Your task to perform on an android device: Search for the best-rated coffee table on Crate & Barrel Image 0: 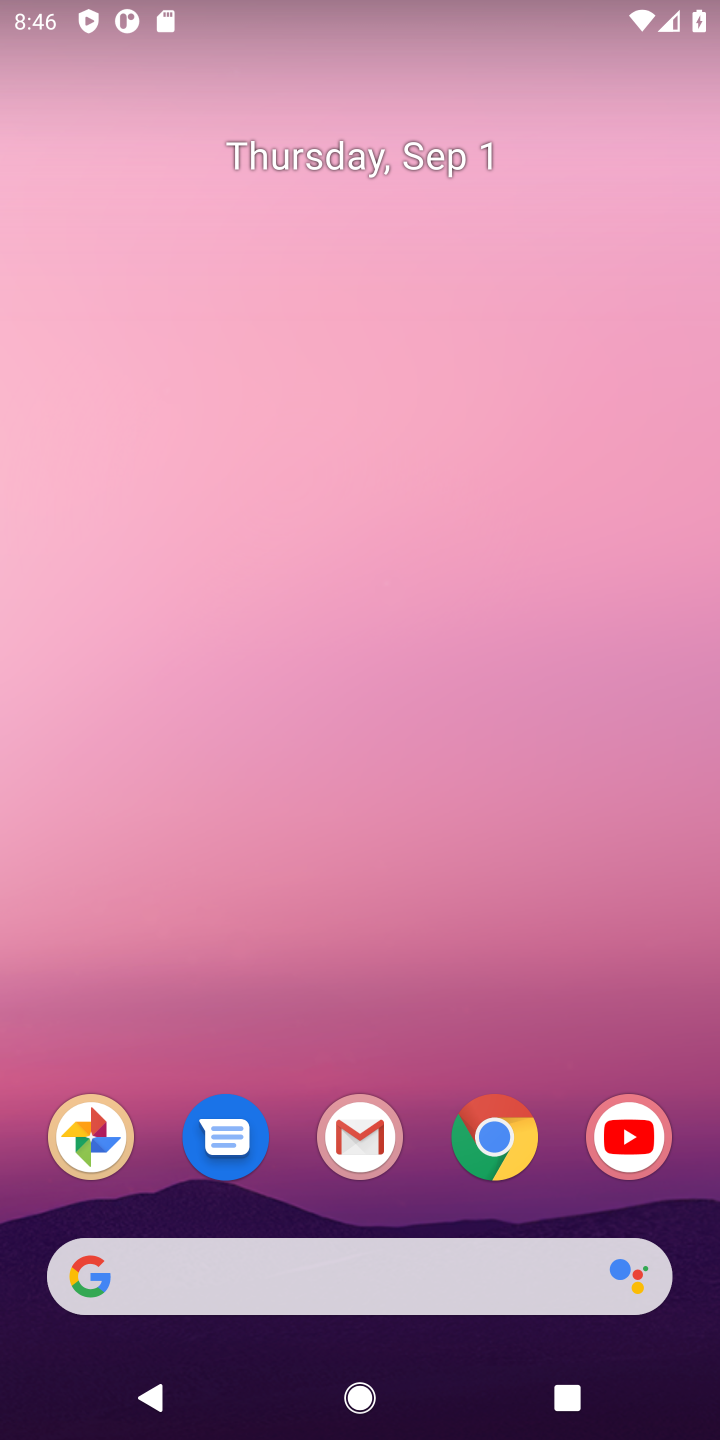
Step 0: drag from (401, 249) to (380, 0)
Your task to perform on an android device: Search for the best-rated coffee table on Crate & Barrel Image 1: 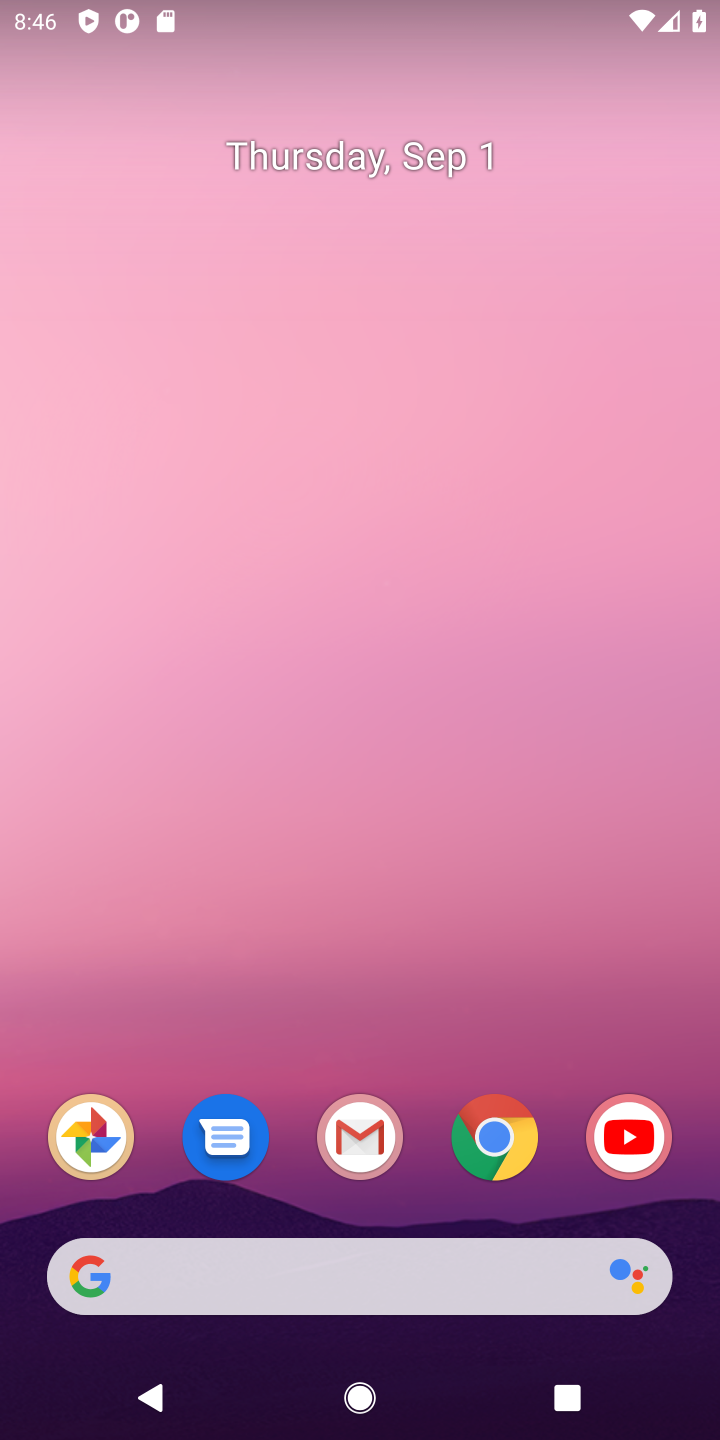
Step 1: drag from (485, 301) to (491, 31)
Your task to perform on an android device: Search for the best-rated coffee table on Crate & Barrel Image 2: 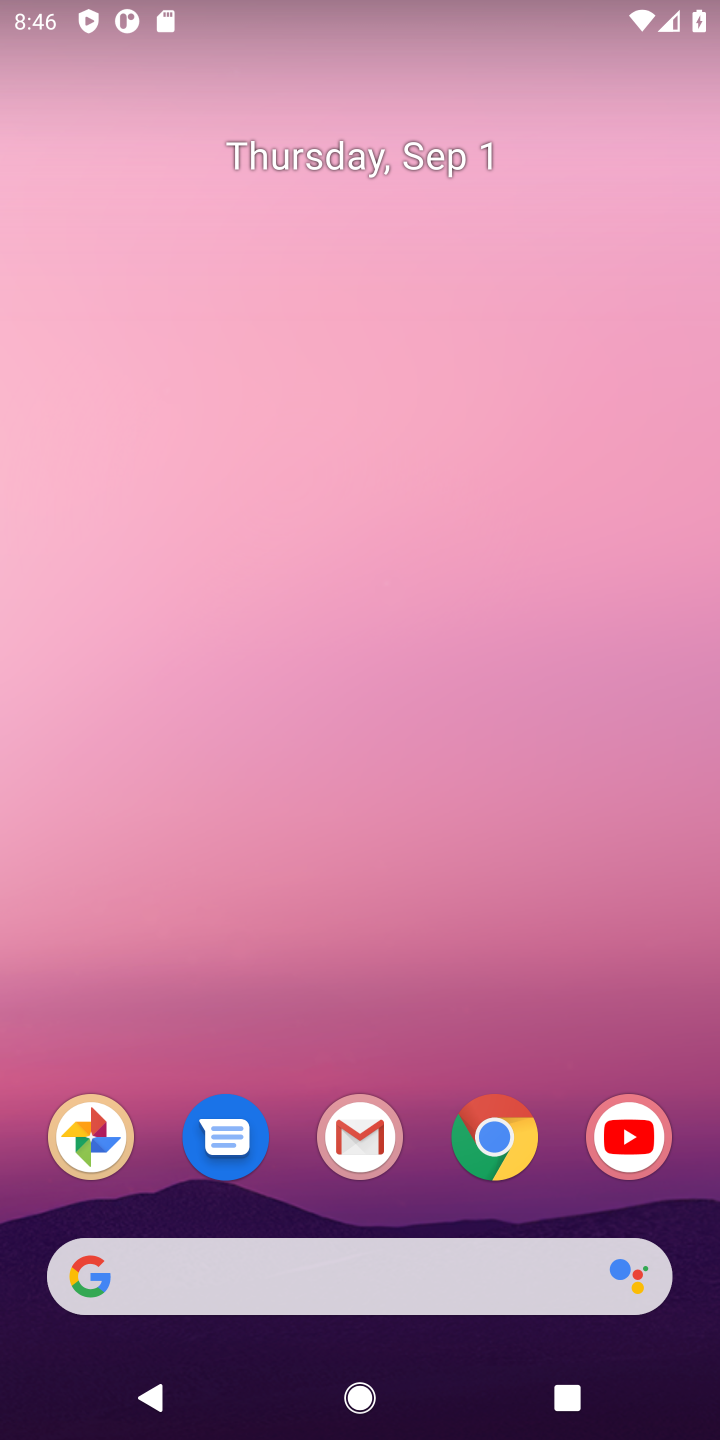
Step 2: drag from (436, 767) to (475, 0)
Your task to perform on an android device: Search for the best-rated coffee table on Crate & Barrel Image 3: 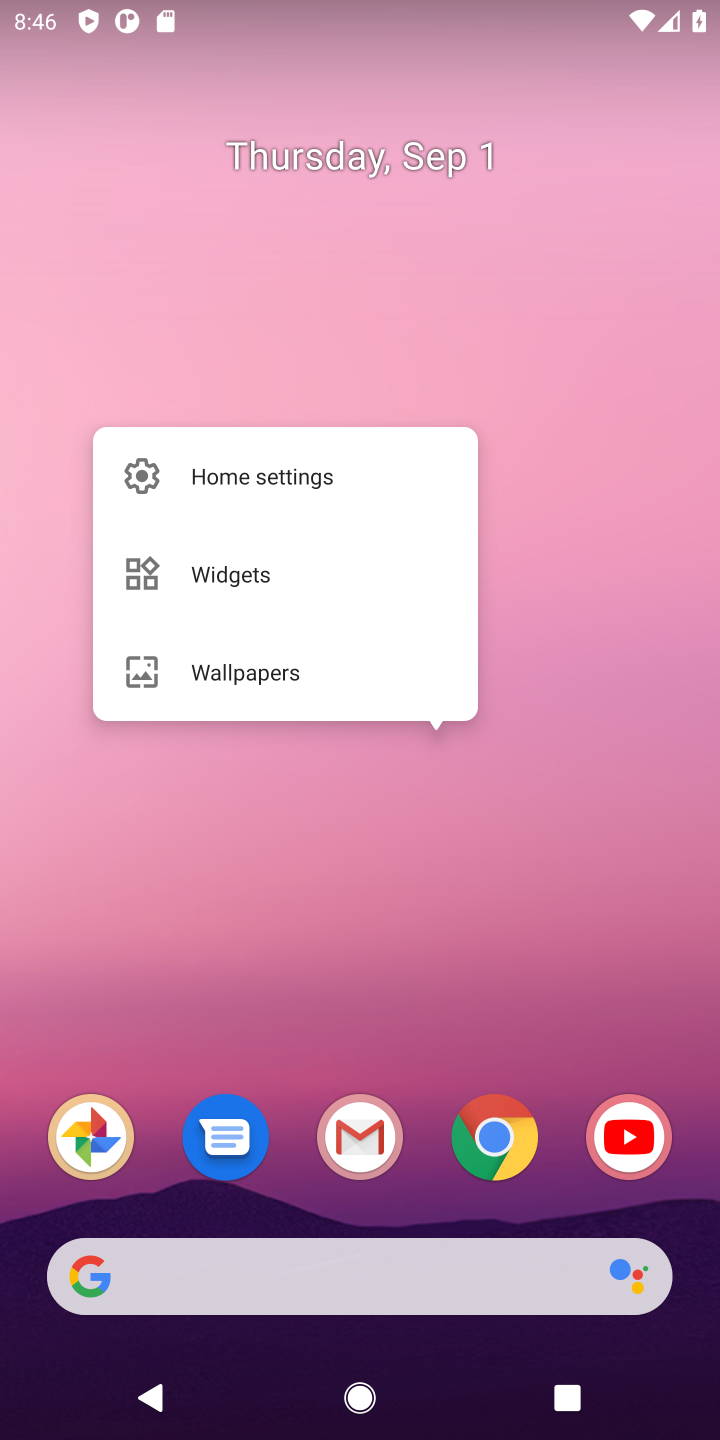
Step 3: click (494, 896)
Your task to perform on an android device: Search for the best-rated coffee table on Crate & Barrel Image 4: 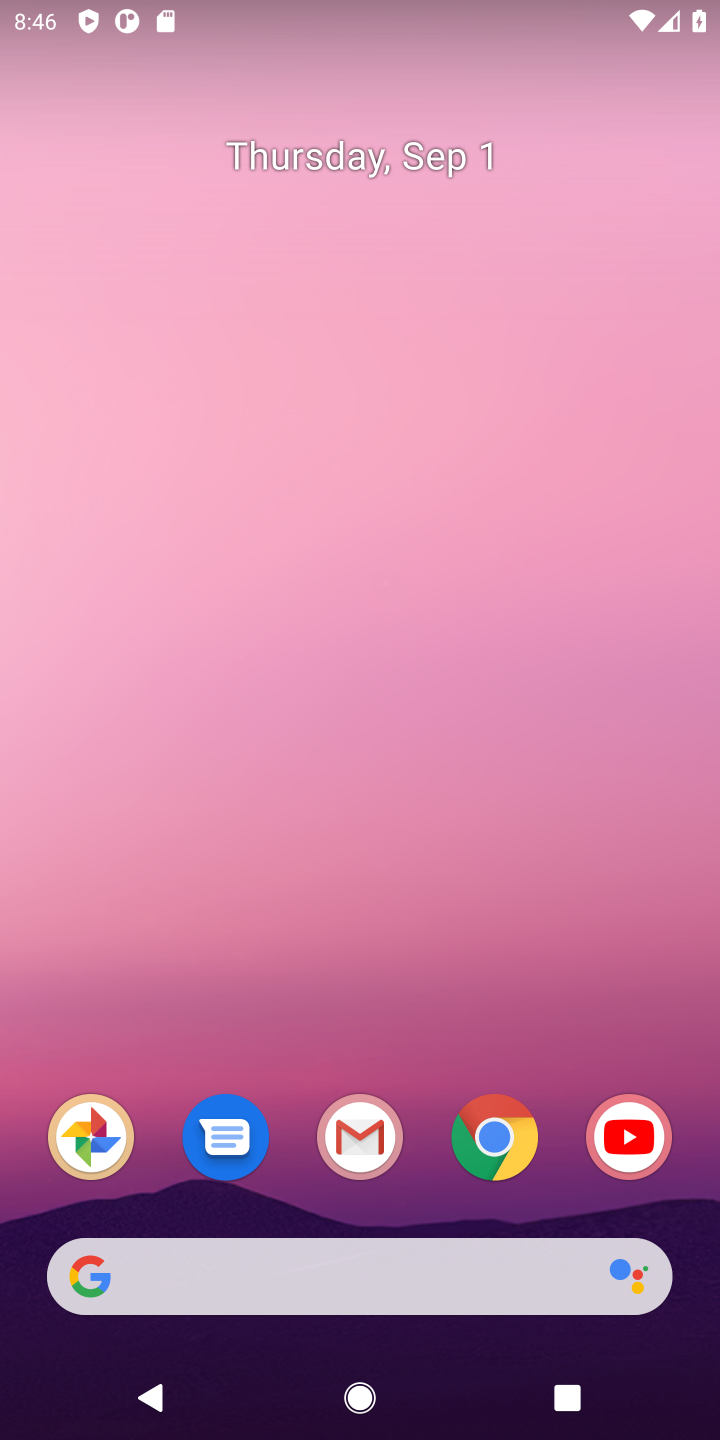
Step 4: click (500, 1125)
Your task to perform on an android device: Search for the best-rated coffee table on Crate & Barrel Image 5: 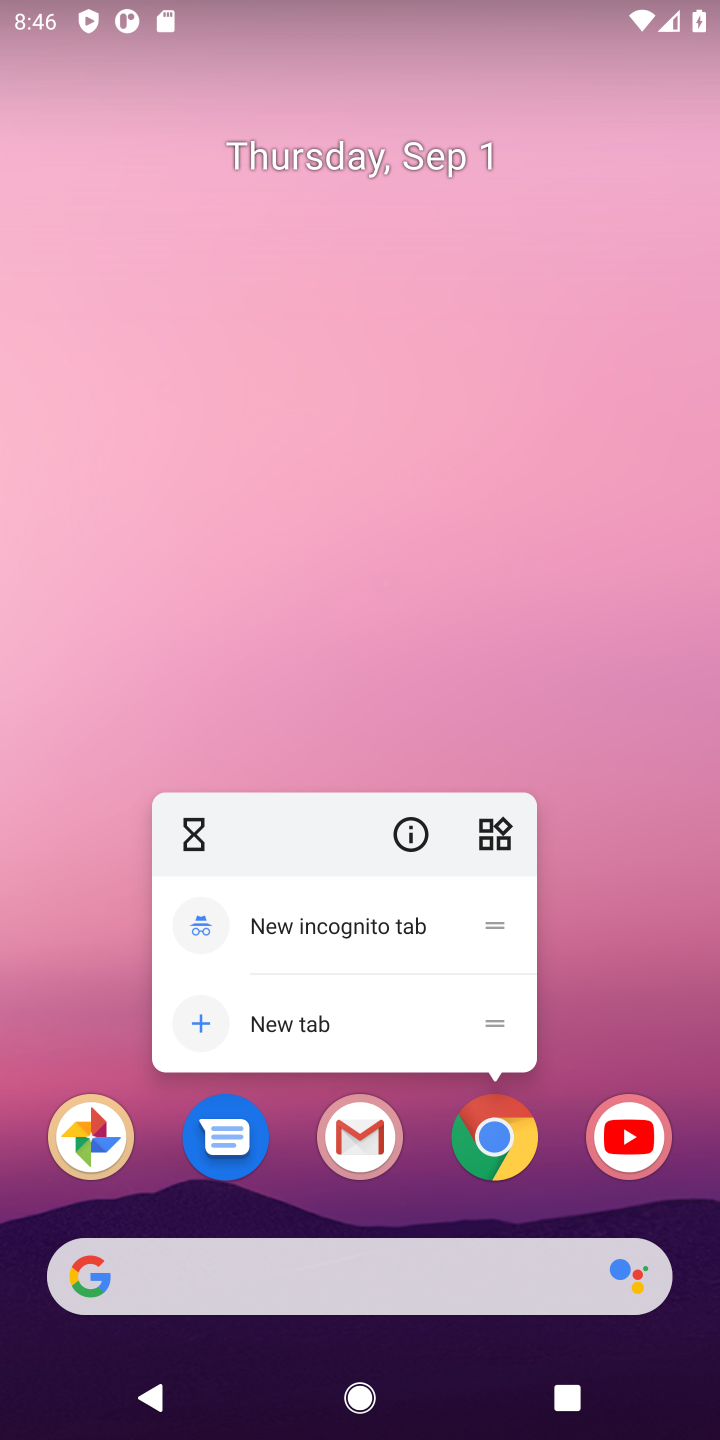
Step 5: click (511, 1149)
Your task to perform on an android device: Search for the best-rated coffee table on Crate & Barrel Image 6: 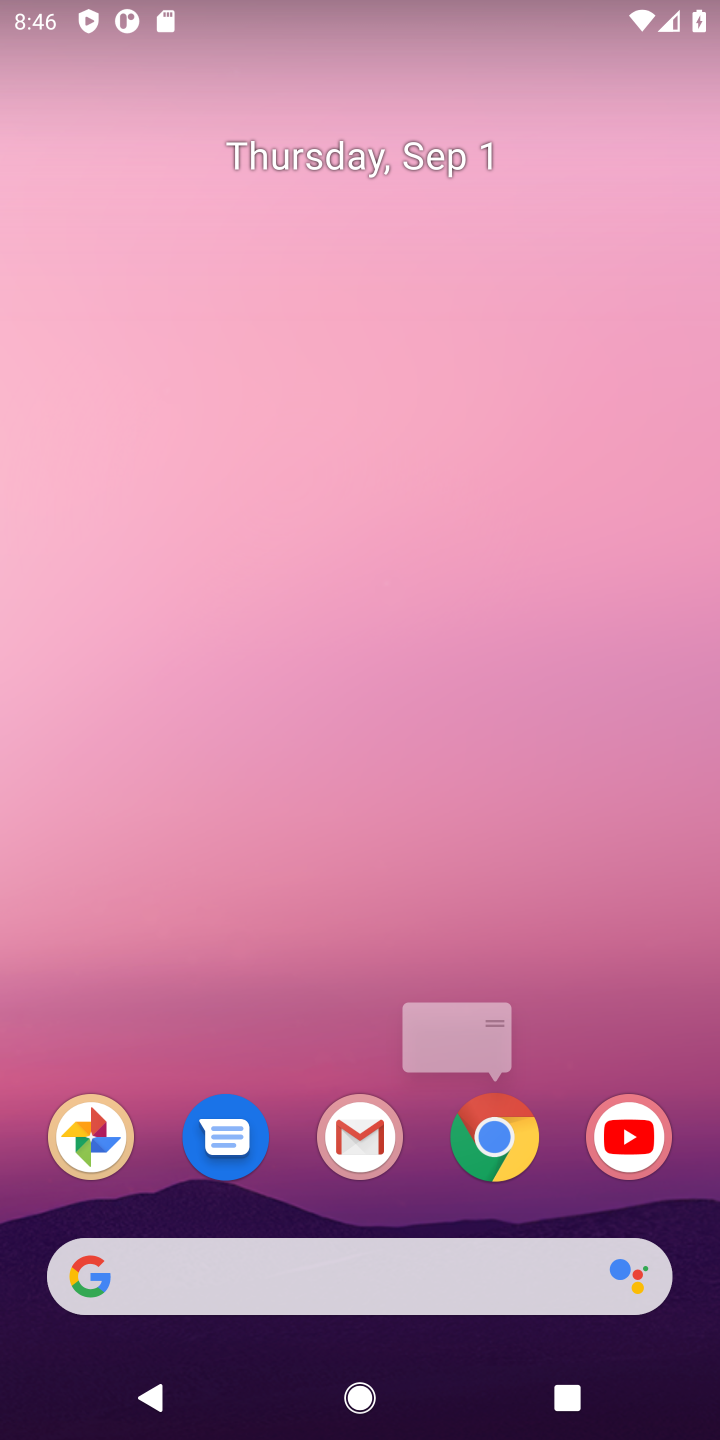
Step 6: drag from (575, 1199) to (638, 0)
Your task to perform on an android device: Search for the best-rated coffee table on Crate & Barrel Image 7: 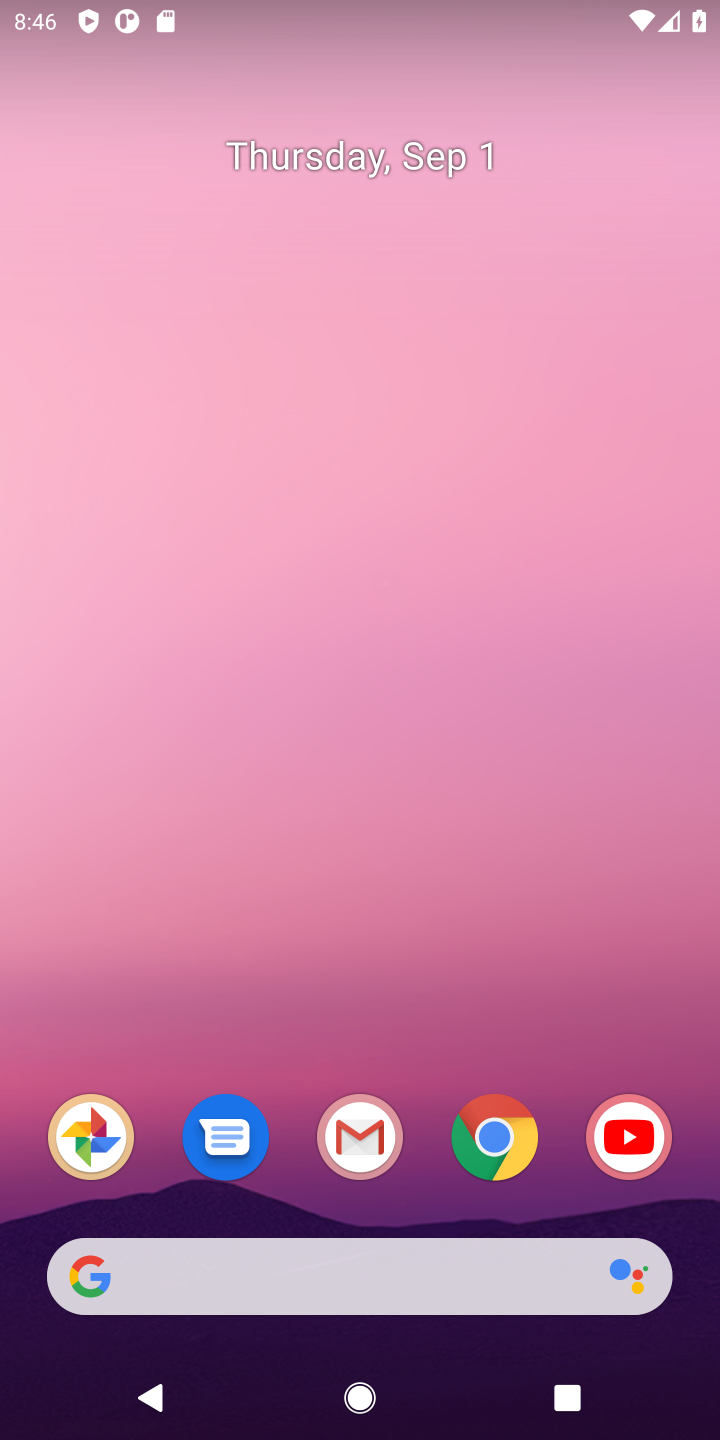
Step 7: drag from (571, 1182) to (656, 11)
Your task to perform on an android device: Search for the best-rated coffee table on Crate & Barrel Image 8: 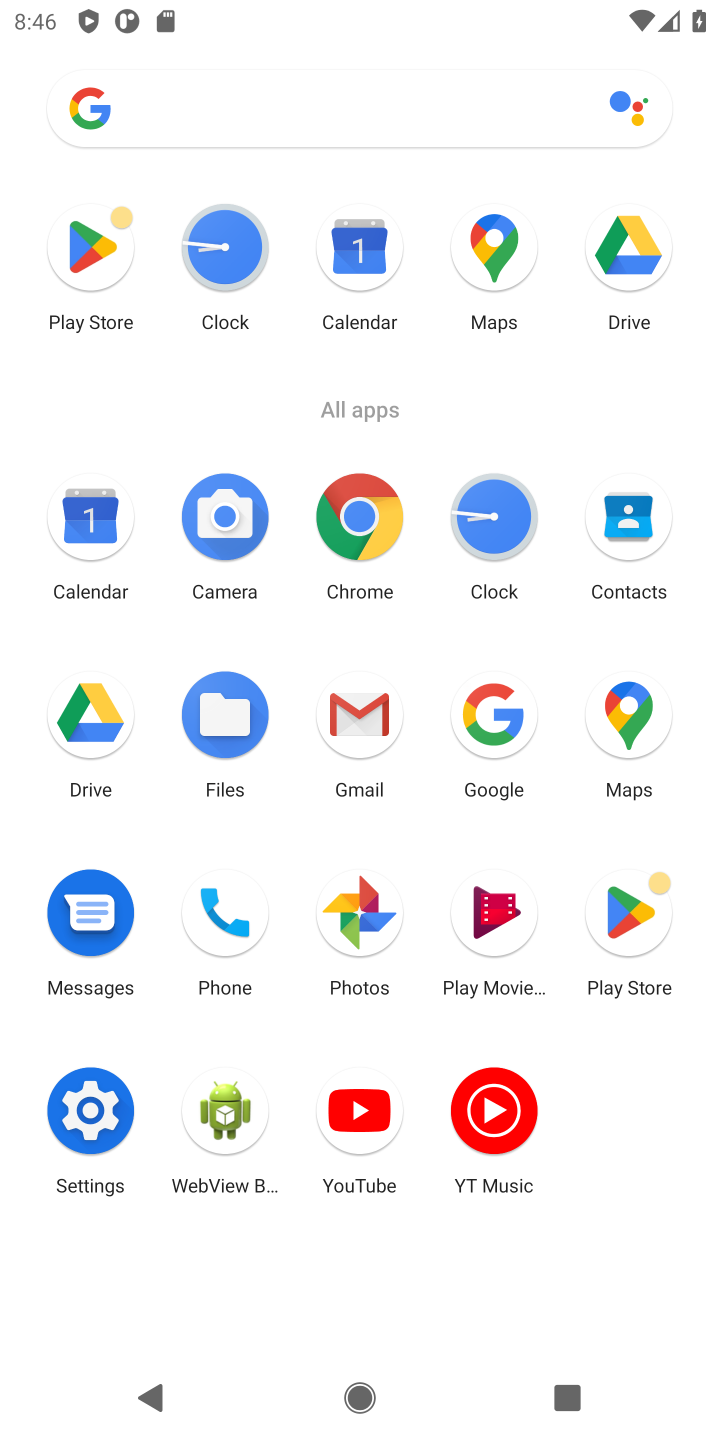
Step 8: click (361, 508)
Your task to perform on an android device: Search for the best-rated coffee table on Crate & Barrel Image 9: 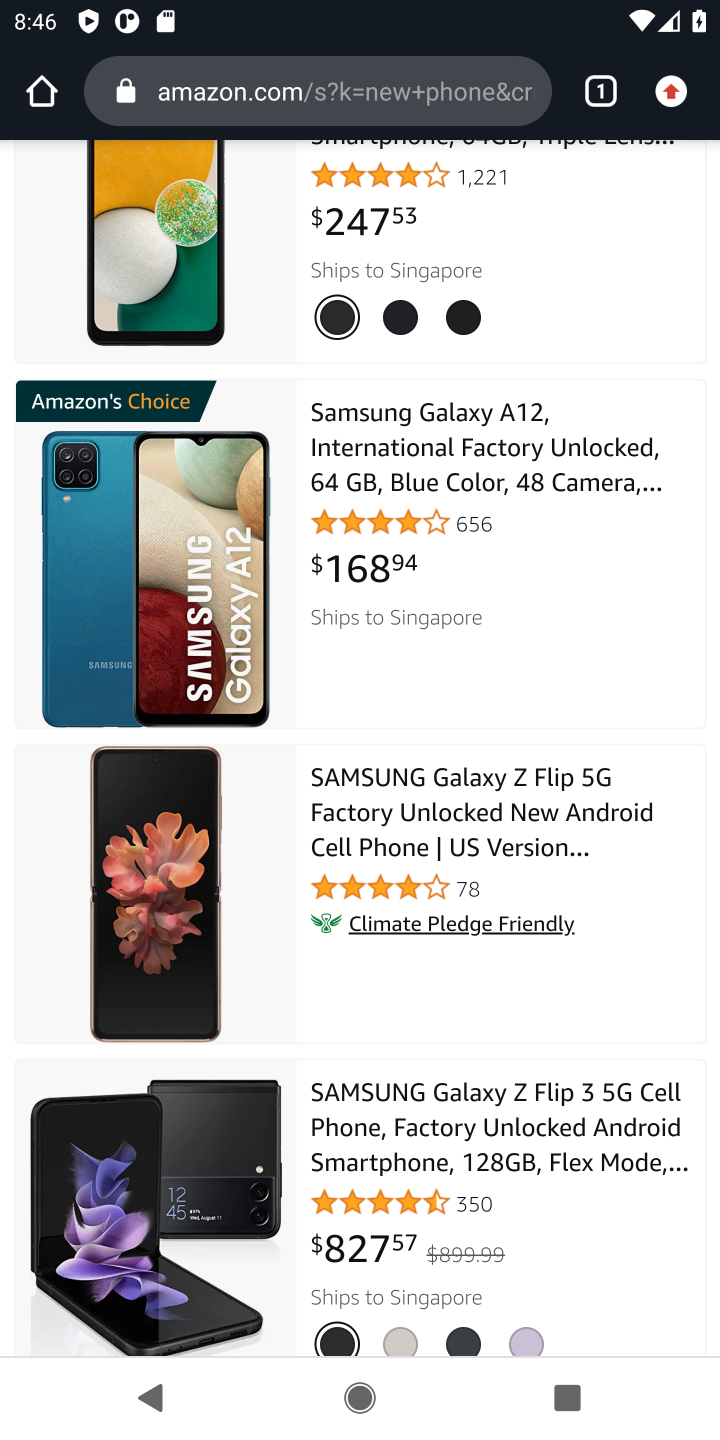
Step 9: click (597, 84)
Your task to perform on an android device: Search for the best-rated coffee table on Crate & Barrel Image 10: 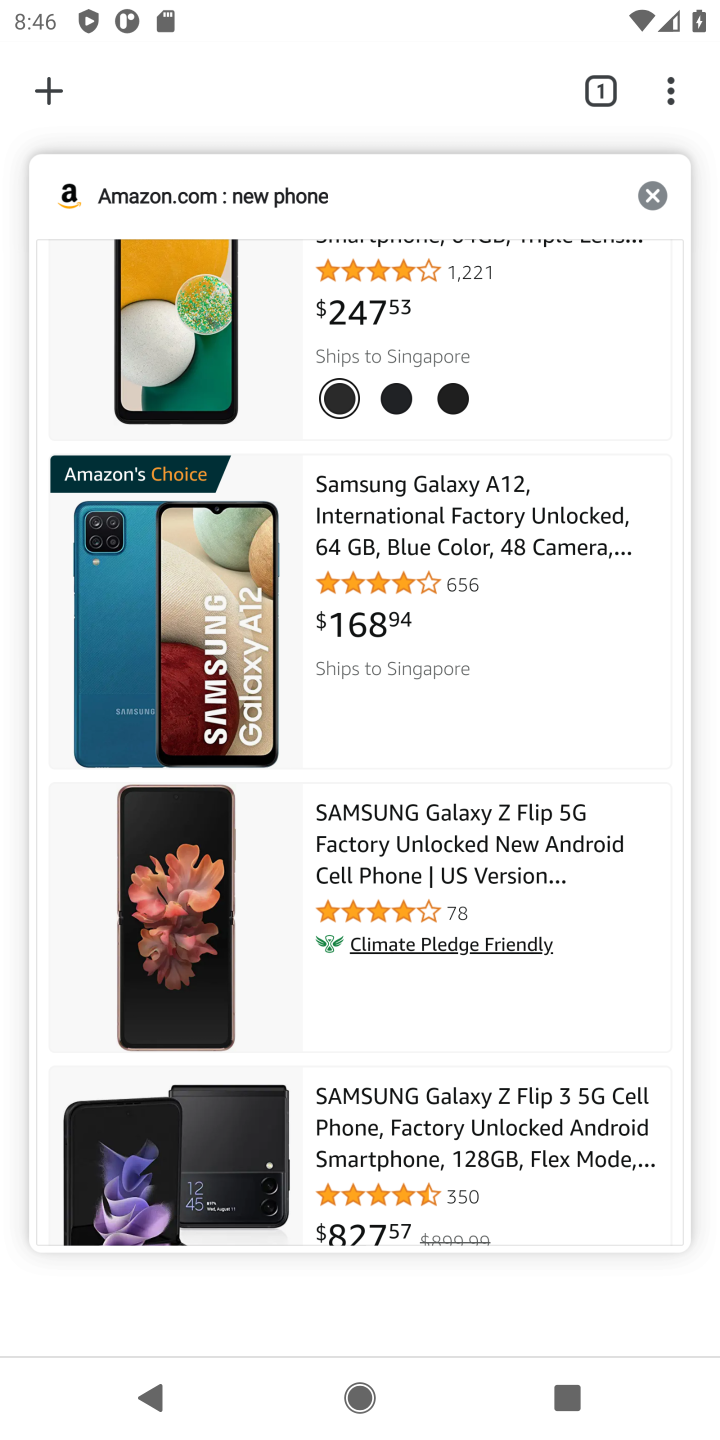
Step 10: click (646, 189)
Your task to perform on an android device: Search for the best-rated coffee table on Crate & Barrel Image 11: 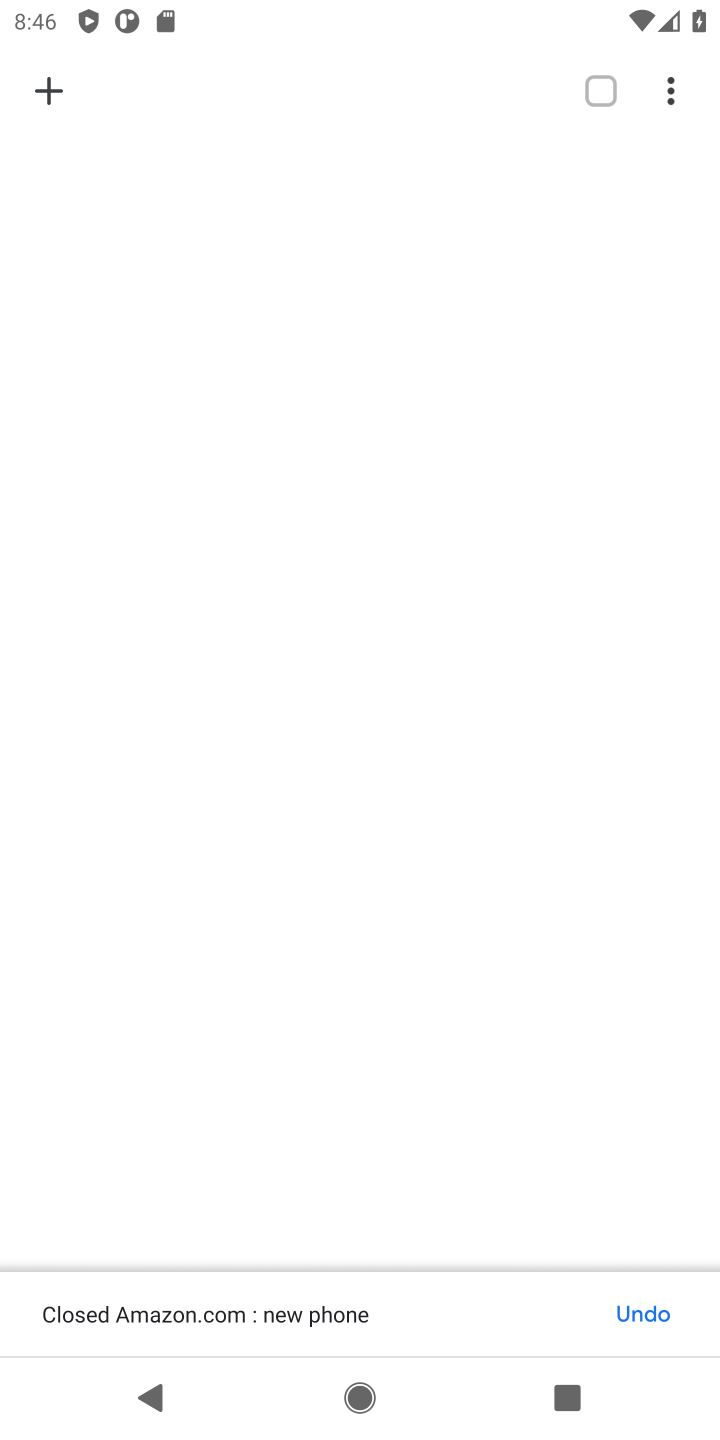
Step 11: click (56, 97)
Your task to perform on an android device: Search for the best-rated coffee table on Crate & Barrel Image 12: 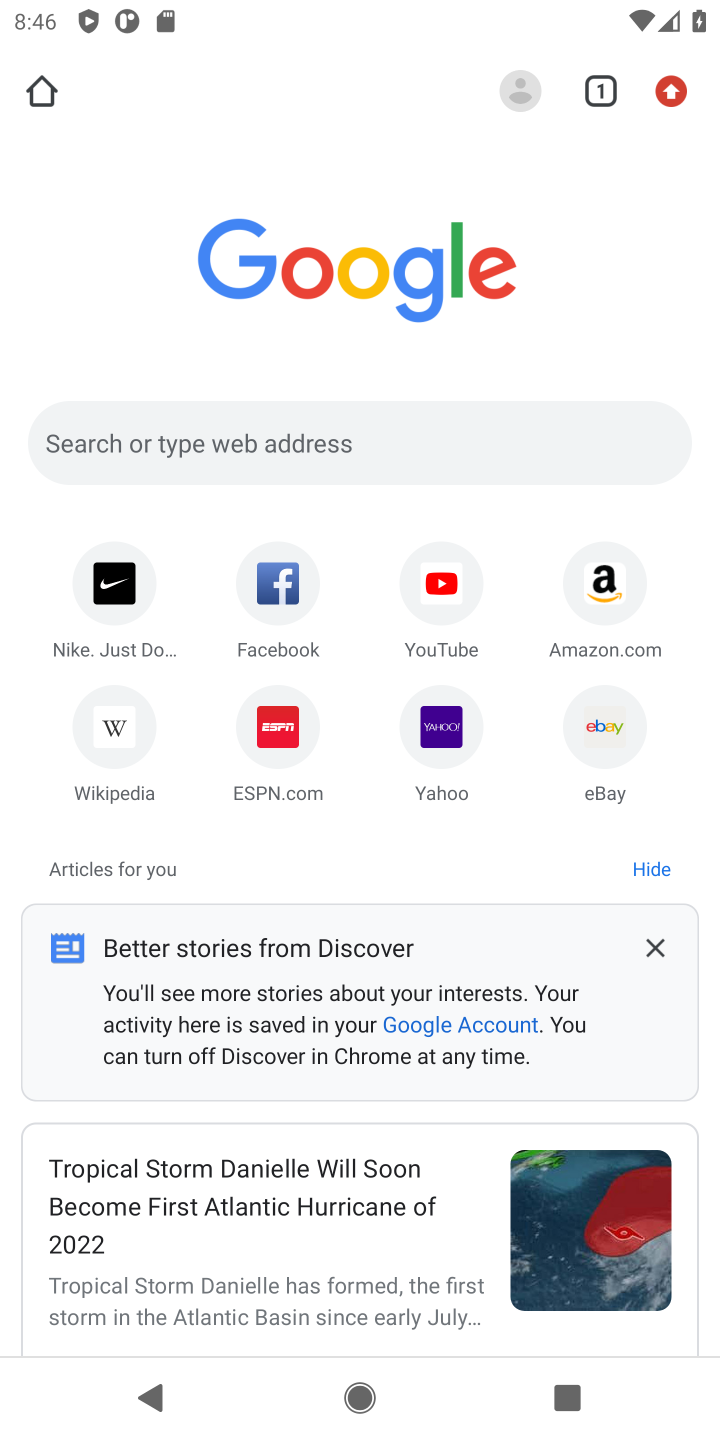
Step 12: click (256, 435)
Your task to perform on an android device: Search for the best-rated coffee table on Crate & Barrel Image 13: 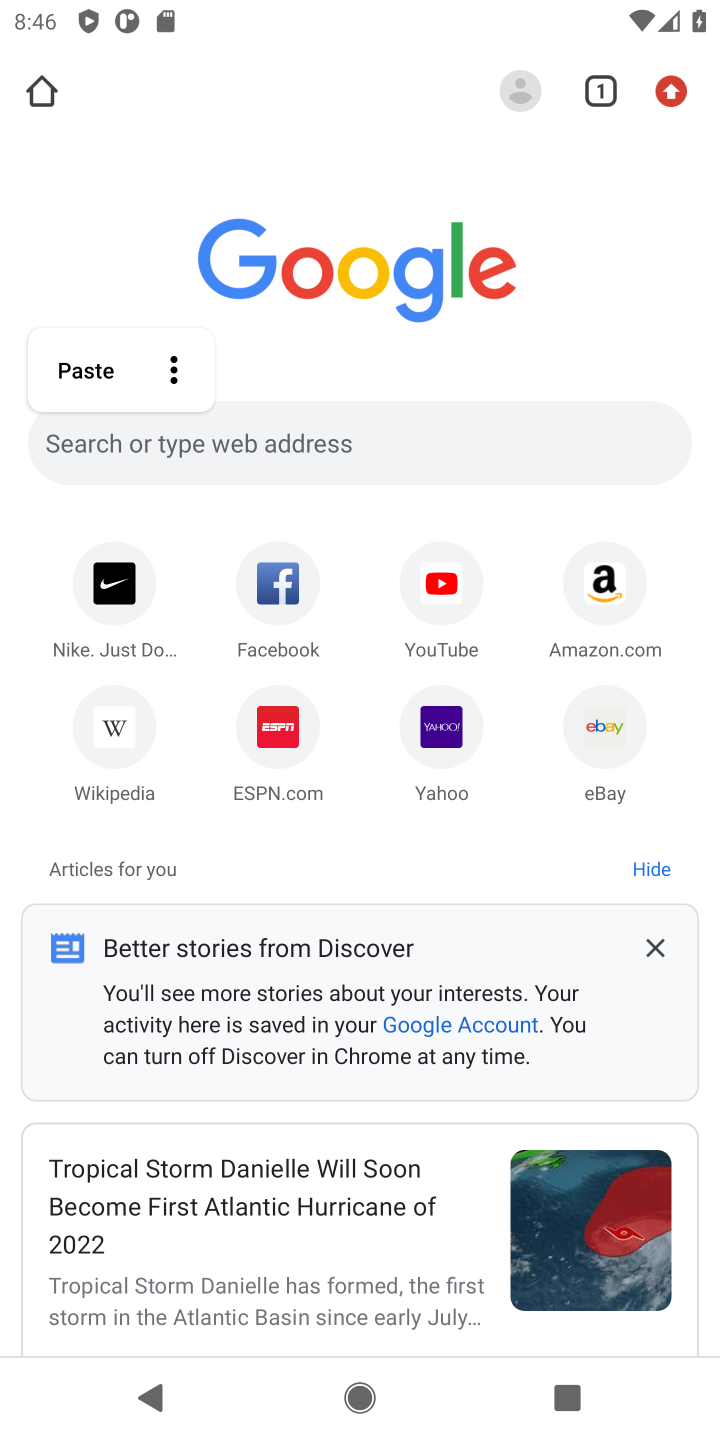
Step 13: type "Crate & Barrel"
Your task to perform on an android device: Search for the best-rated coffee table on Crate & Barrel Image 14: 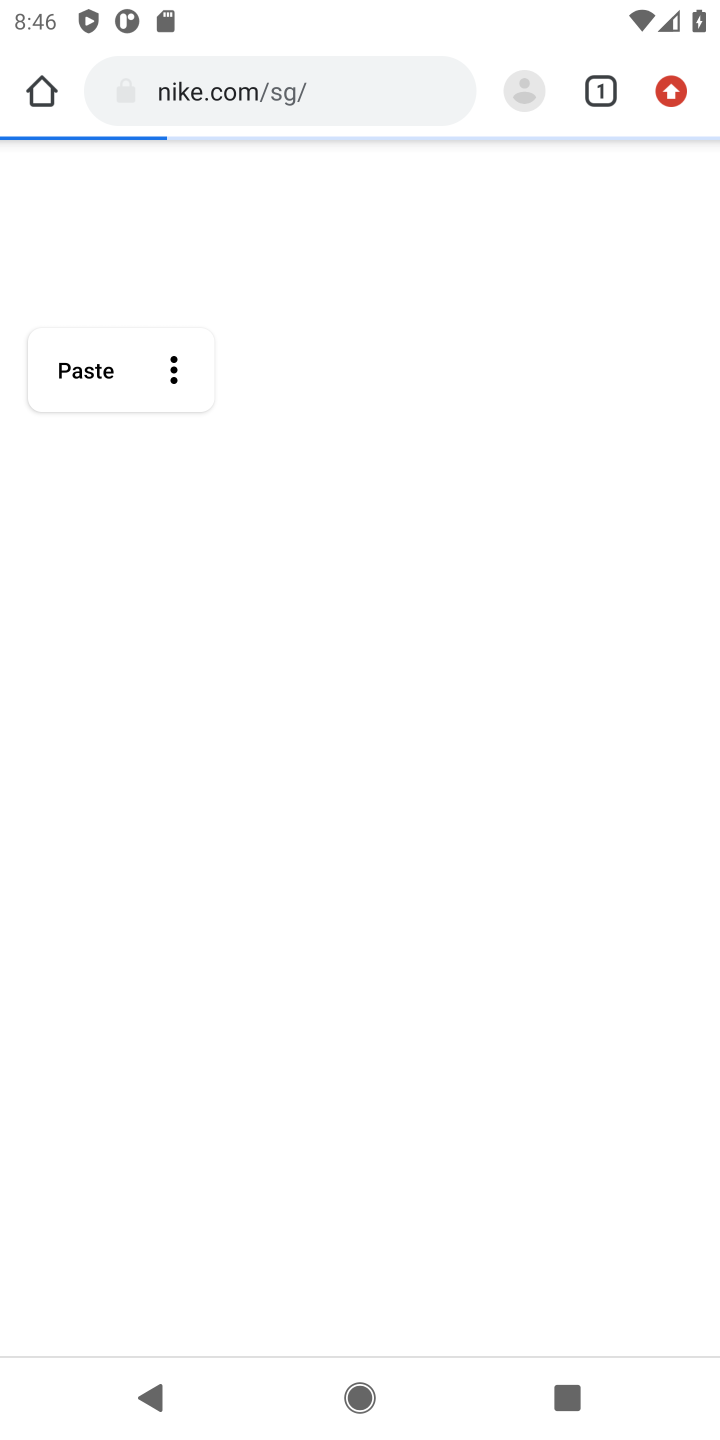
Step 14: click (212, 433)
Your task to perform on an android device: Search for the best-rated coffee table on Crate & Barrel Image 15: 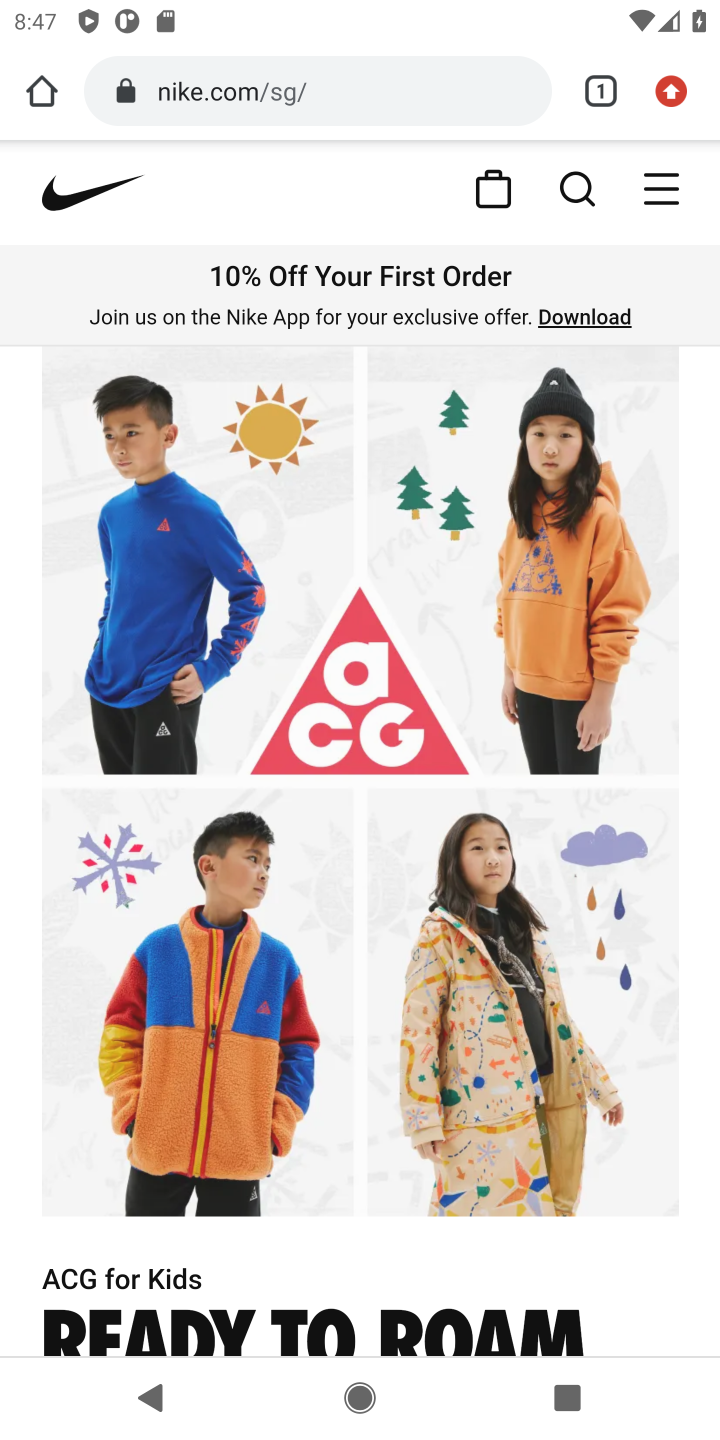
Step 15: click (342, 69)
Your task to perform on an android device: Search for the best-rated coffee table on Crate & Barrel Image 16: 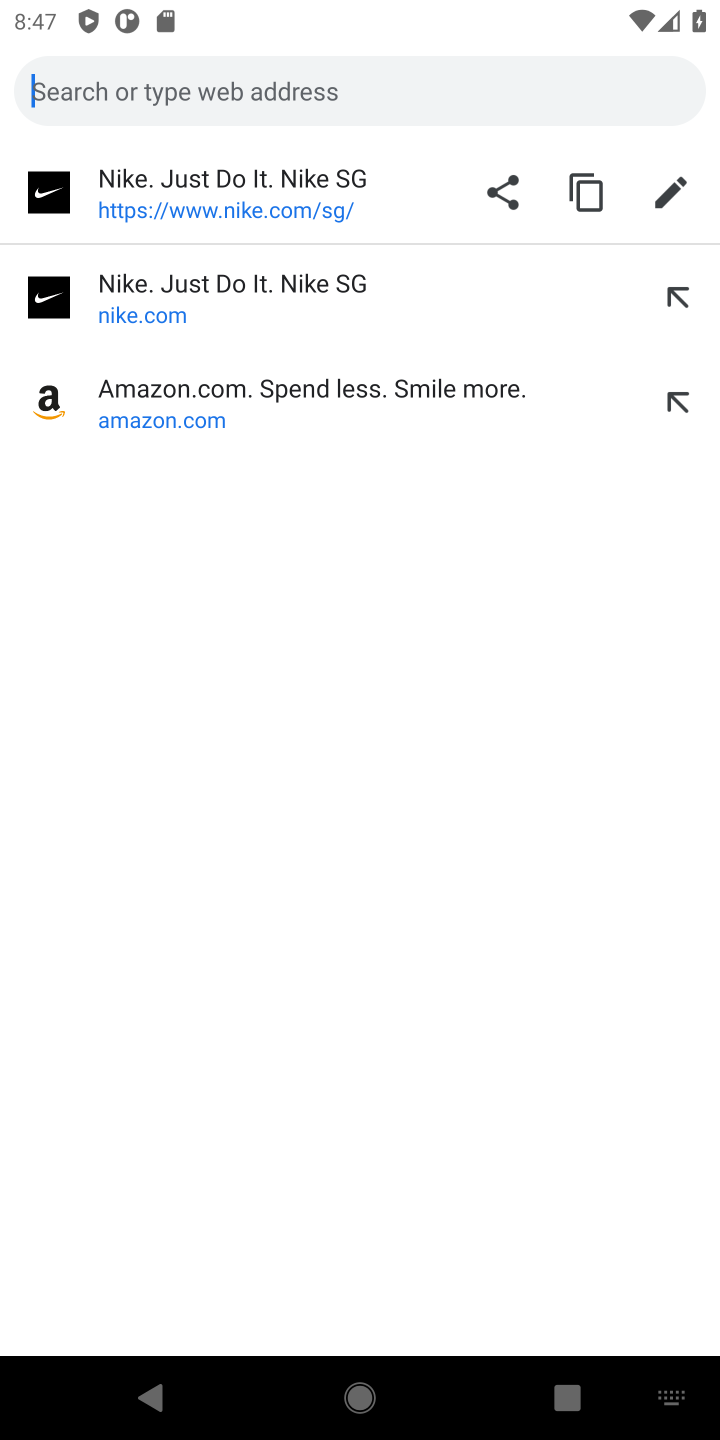
Step 16: type "Crate & Barrel"
Your task to perform on an android device: Search for the best-rated coffee table on Crate & Barrel Image 17: 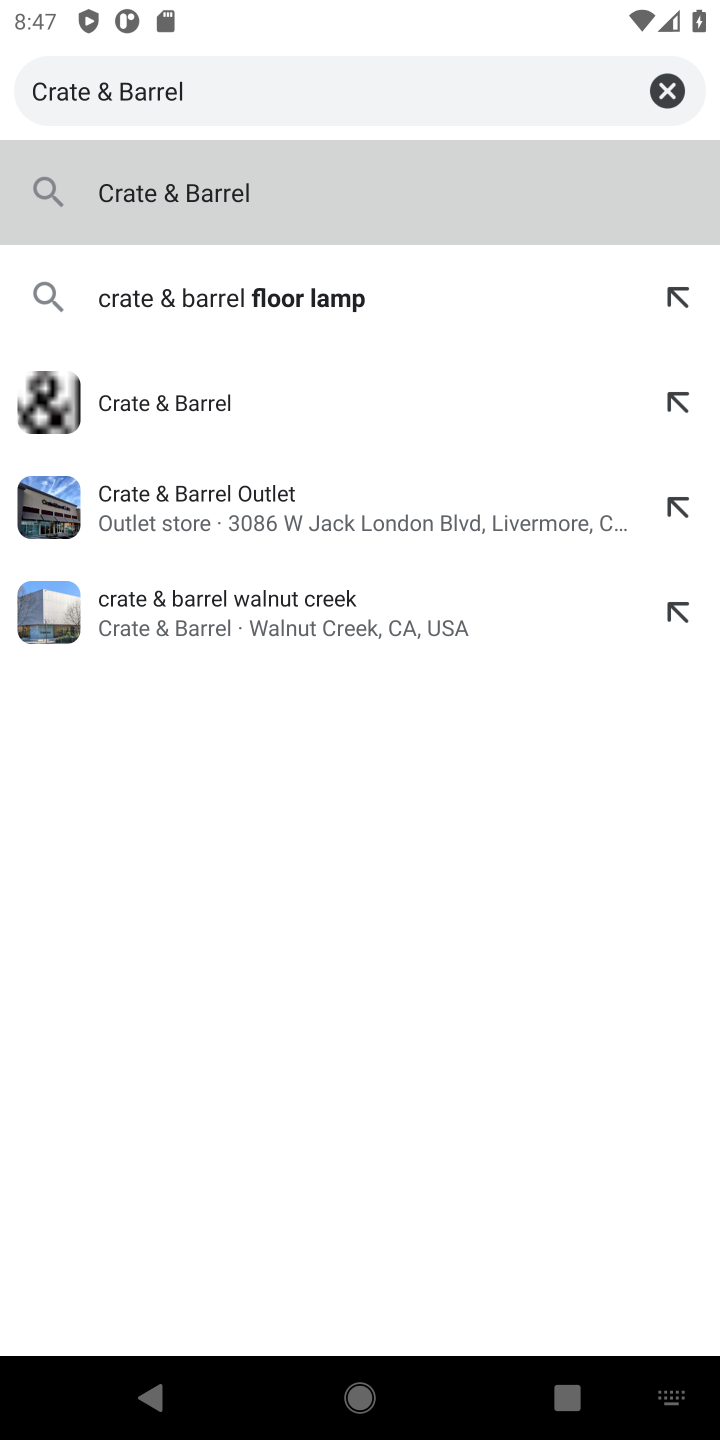
Step 17: click (291, 189)
Your task to perform on an android device: Search for the best-rated coffee table on Crate & Barrel Image 18: 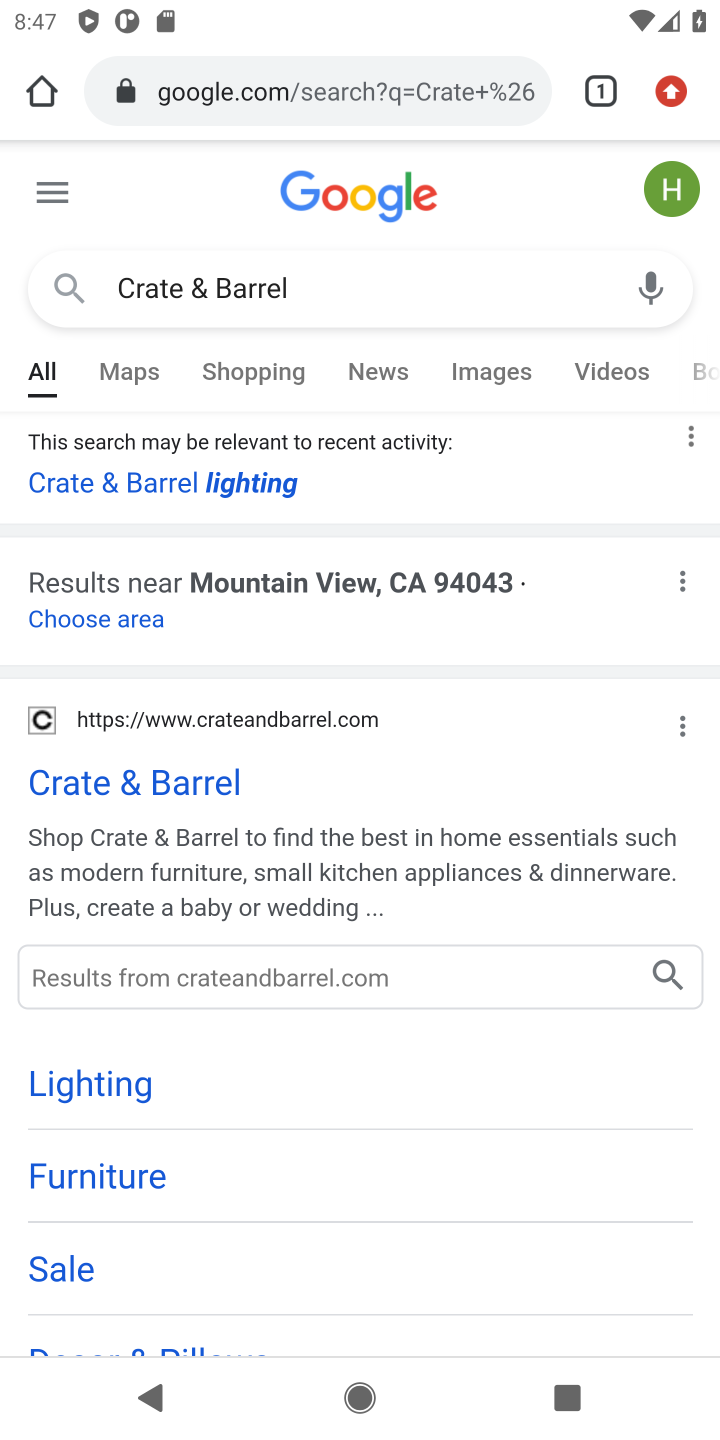
Step 18: click (197, 781)
Your task to perform on an android device: Search for the best-rated coffee table on Crate & Barrel Image 19: 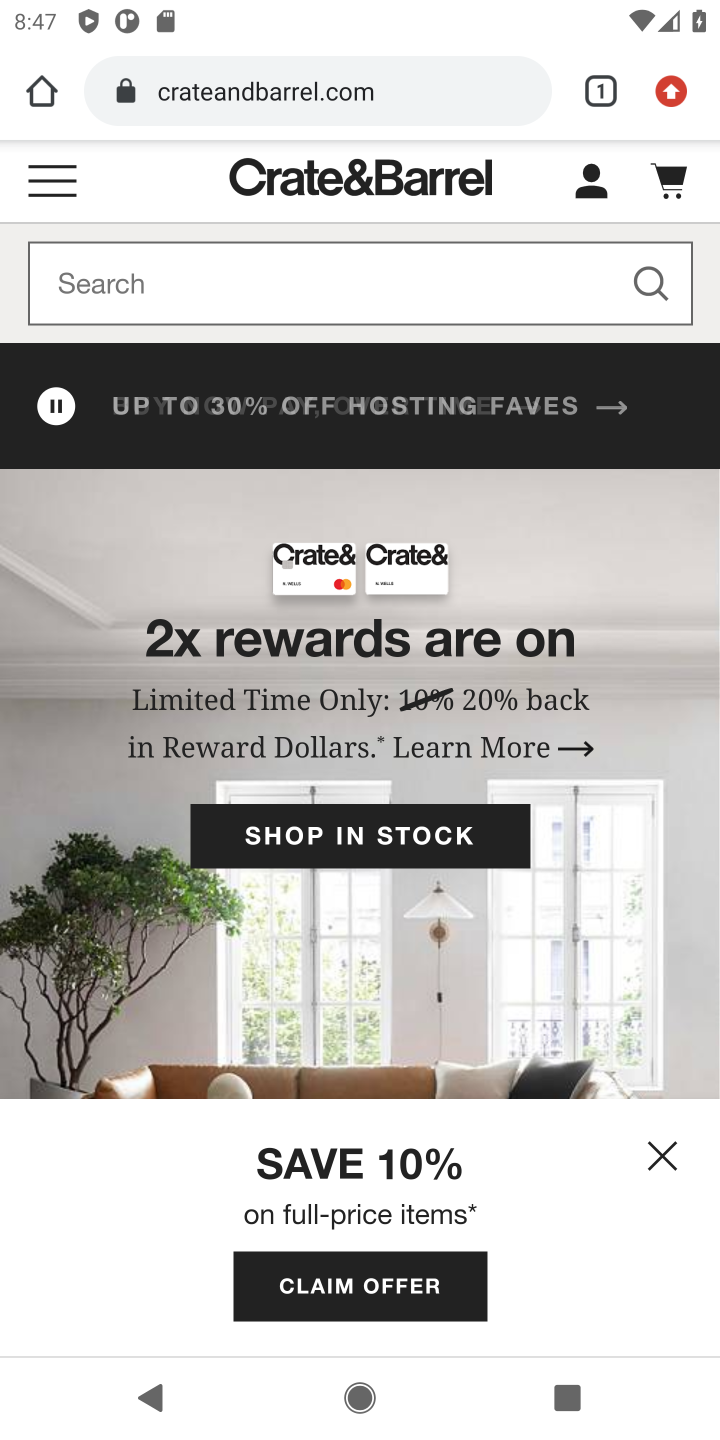
Step 19: click (183, 296)
Your task to perform on an android device: Search for the best-rated coffee table on Crate & Barrel Image 20: 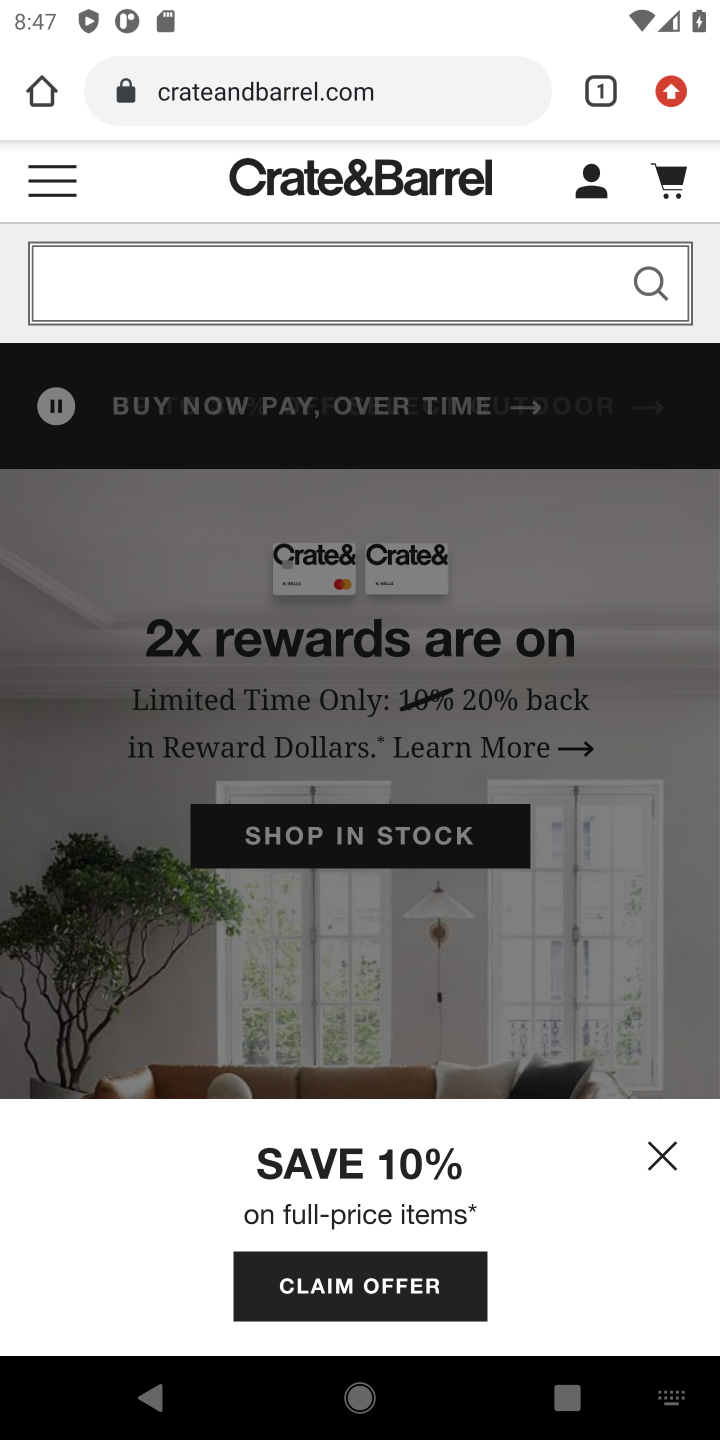
Step 20: click (179, 285)
Your task to perform on an android device: Search for the best-rated coffee table on Crate & Barrel Image 21: 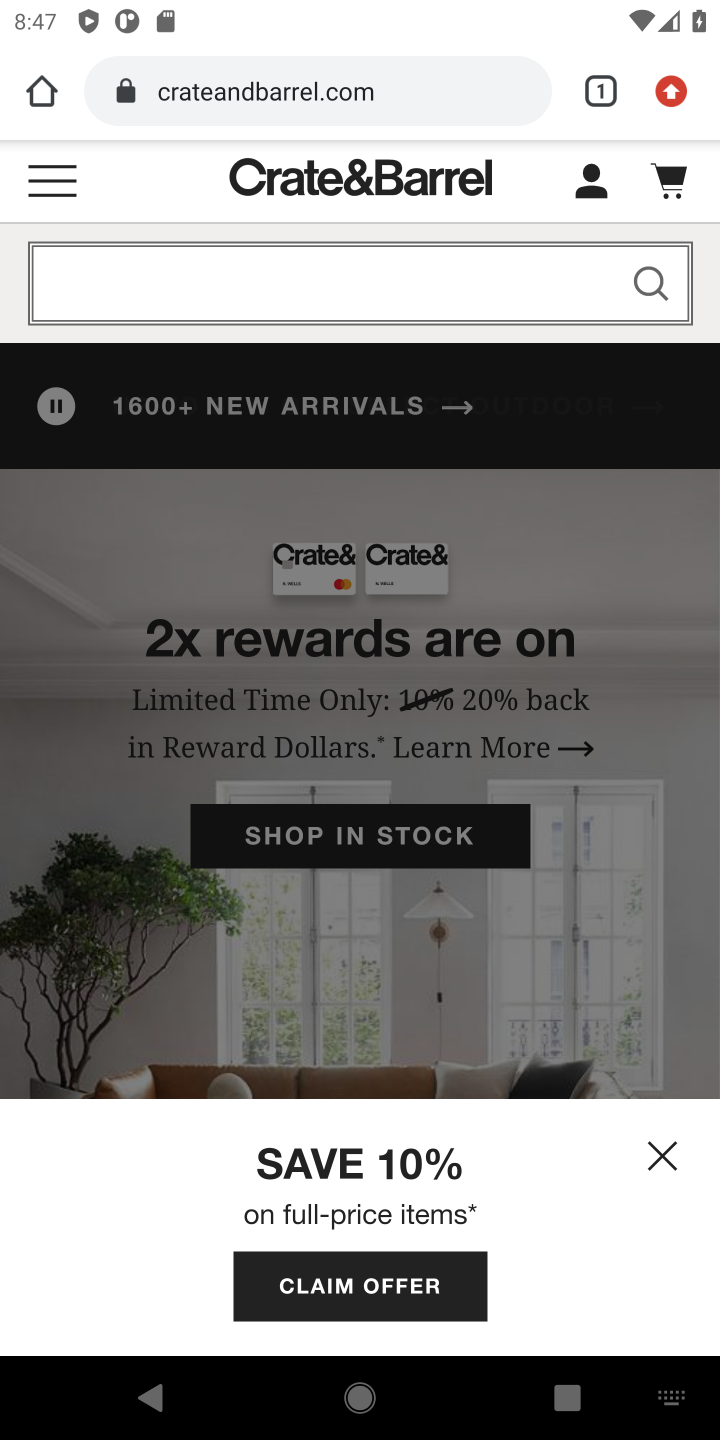
Step 21: type "best-rated coffee table"
Your task to perform on an android device: Search for the best-rated coffee table on Crate & Barrel Image 22: 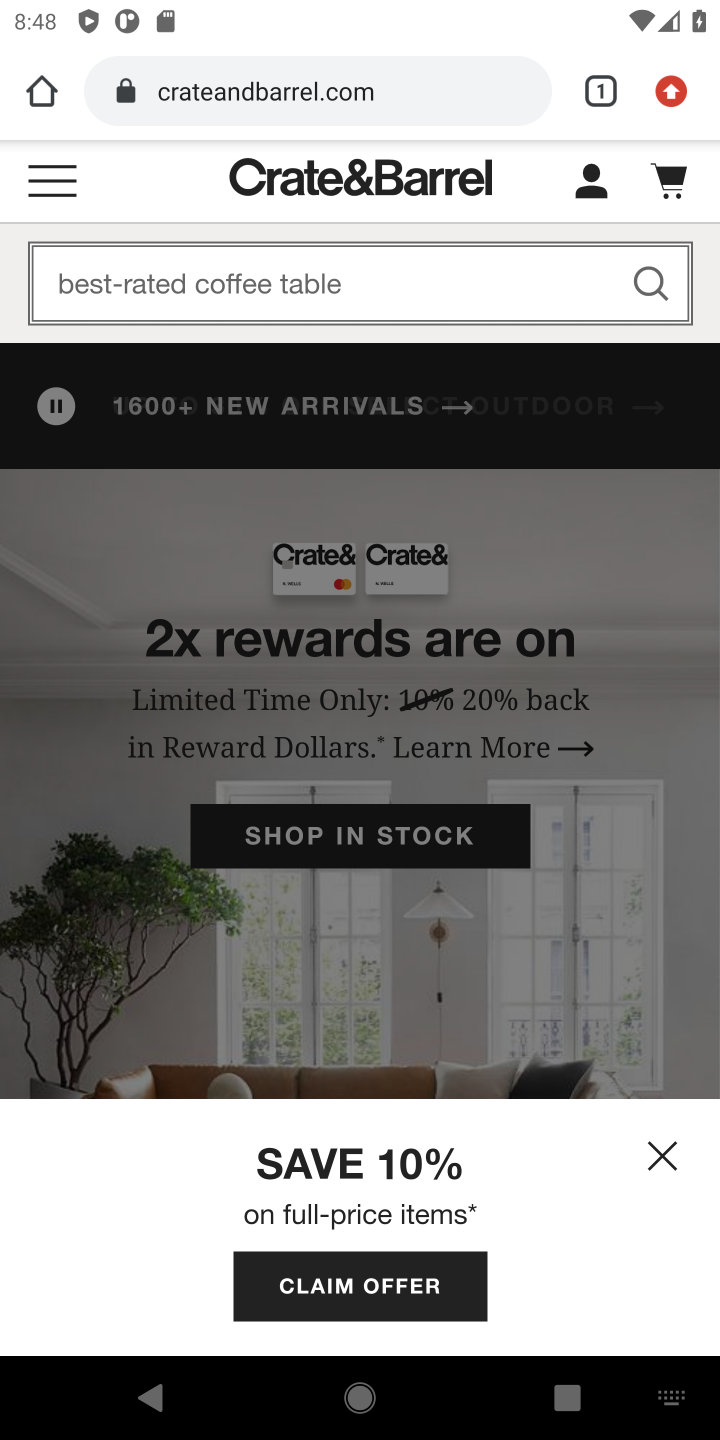
Step 22: click (644, 281)
Your task to perform on an android device: Search for the best-rated coffee table on Crate & Barrel Image 23: 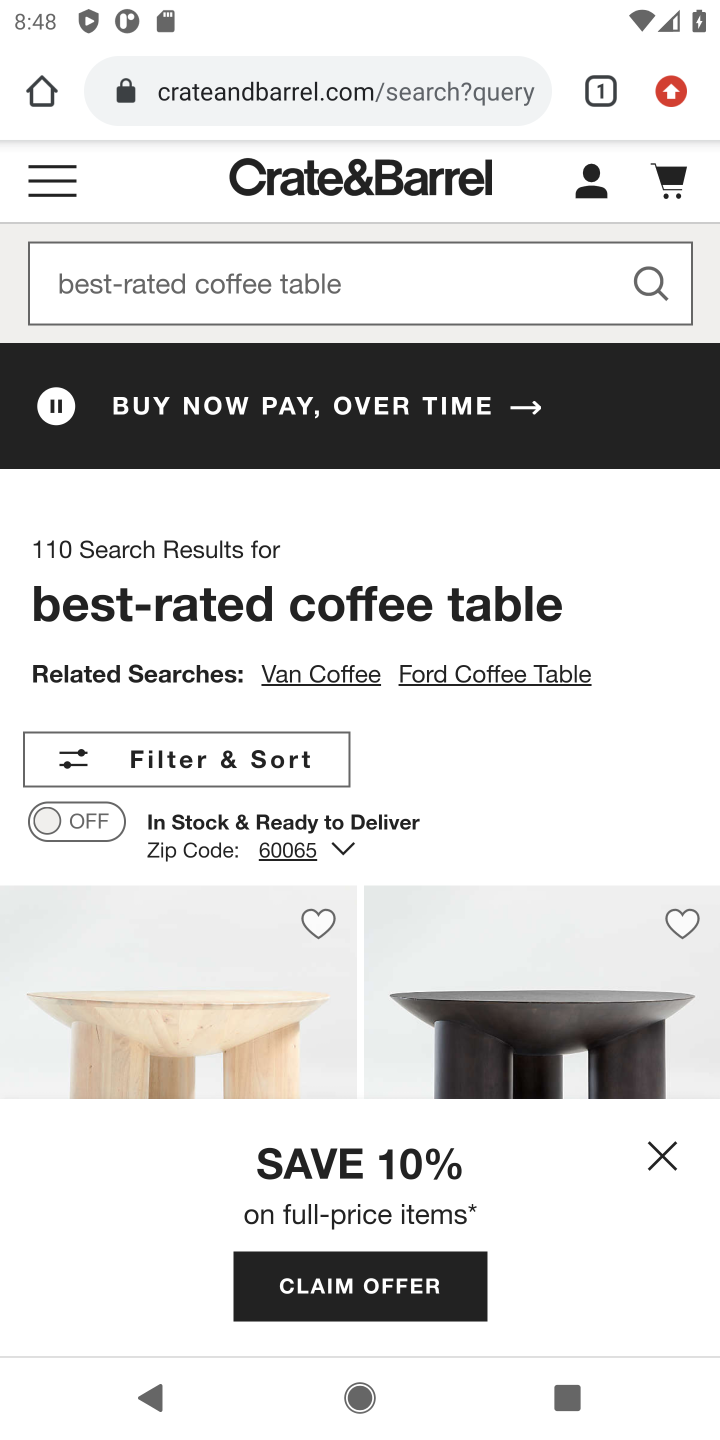
Step 23: task complete